Your task to perform on an android device: open app "Google Maps" Image 0: 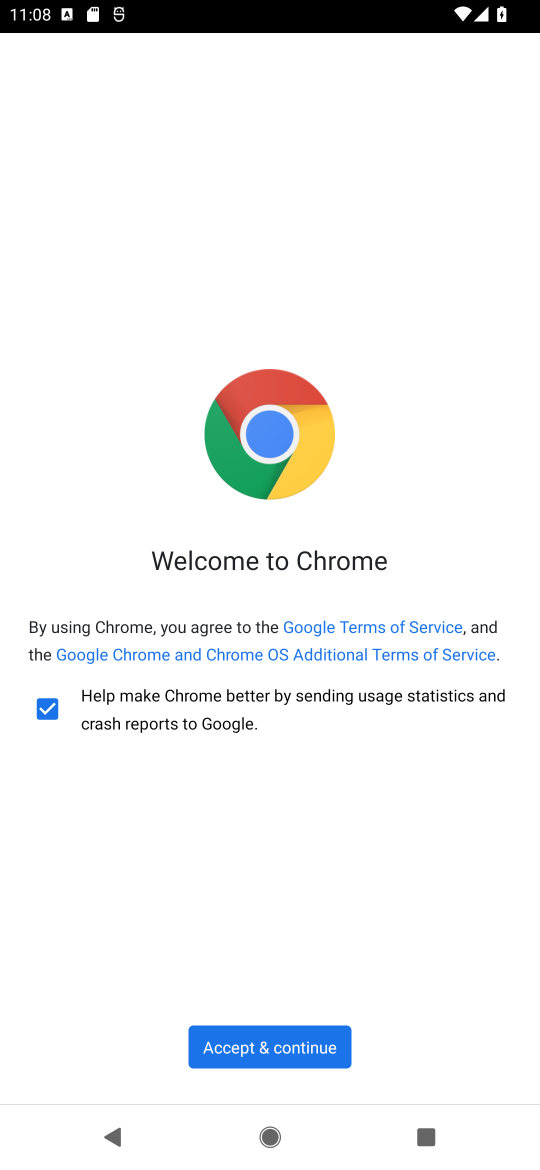
Step 0: press home button
Your task to perform on an android device: open app "Google Maps" Image 1: 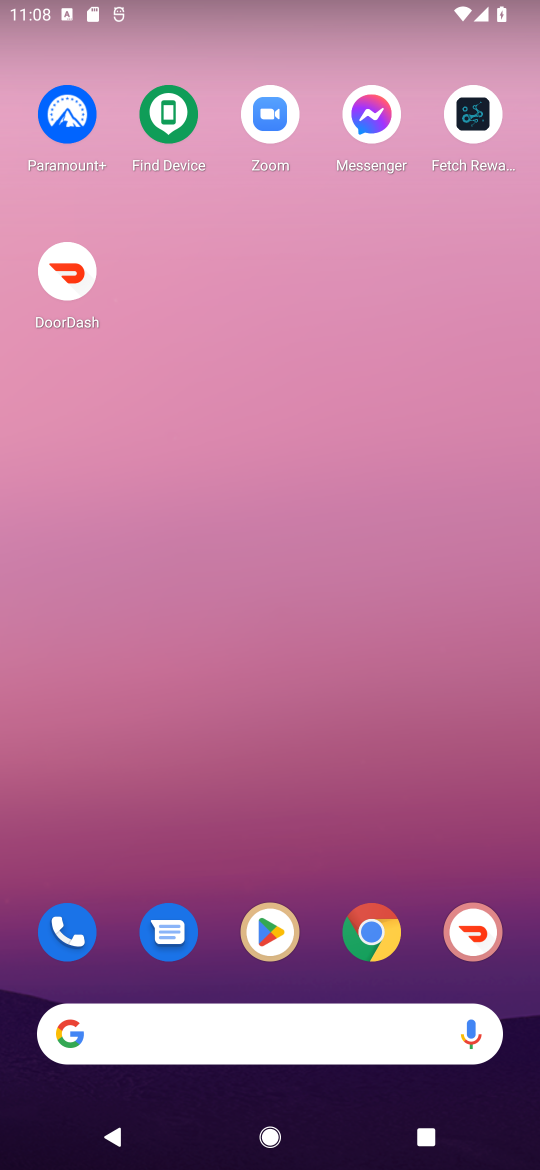
Step 1: click (274, 924)
Your task to perform on an android device: open app "Google Maps" Image 2: 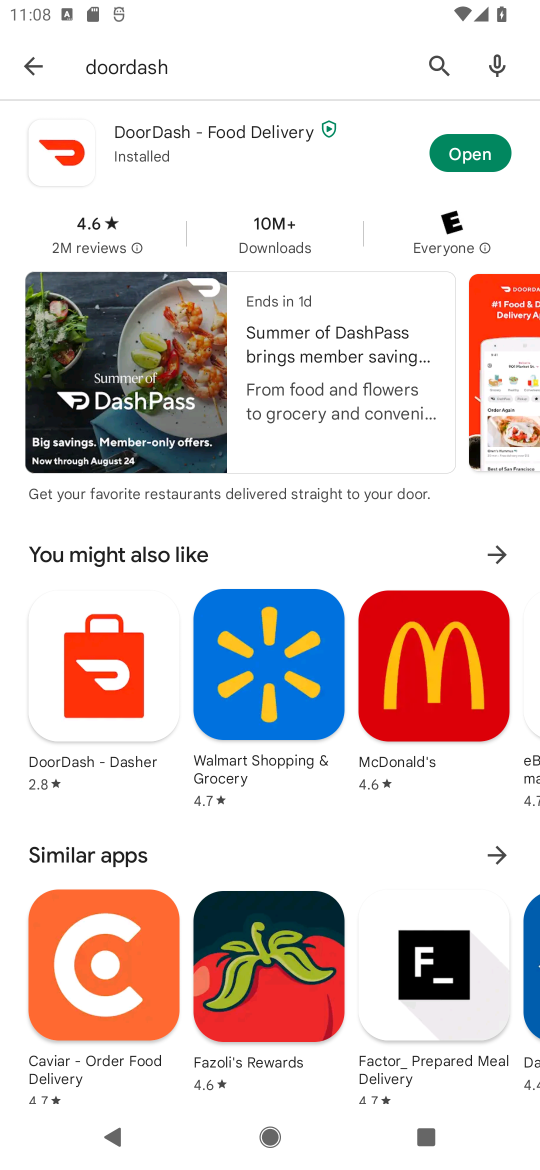
Step 2: click (436, 68)
Your task to perform on an android device: open app "Google Maps" Image 3: 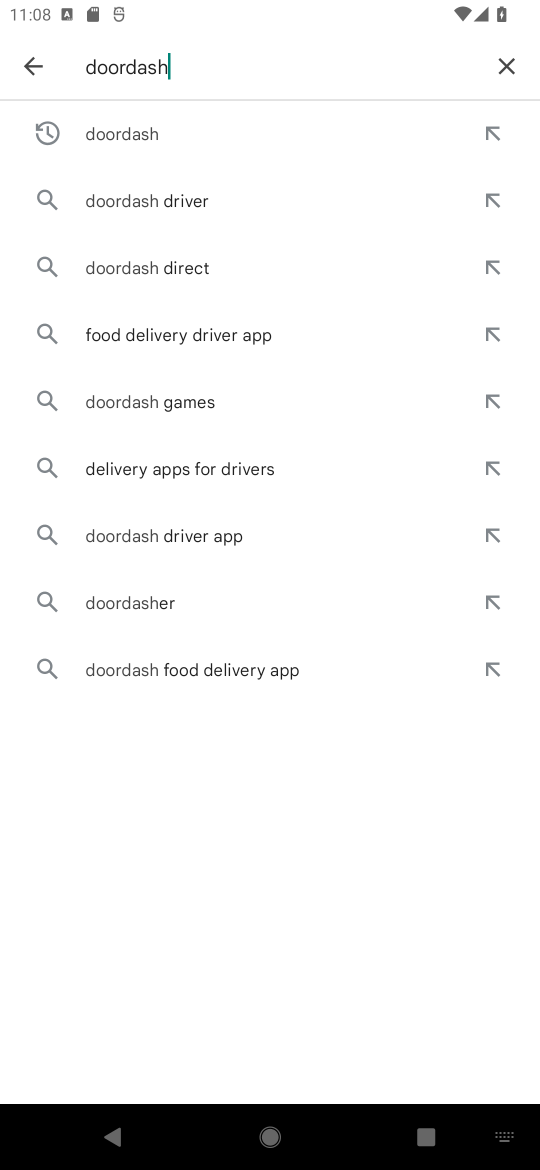
Step 3: click (502, 62)
Your task to perform on an android device: open app "Google Maps" Image 4: 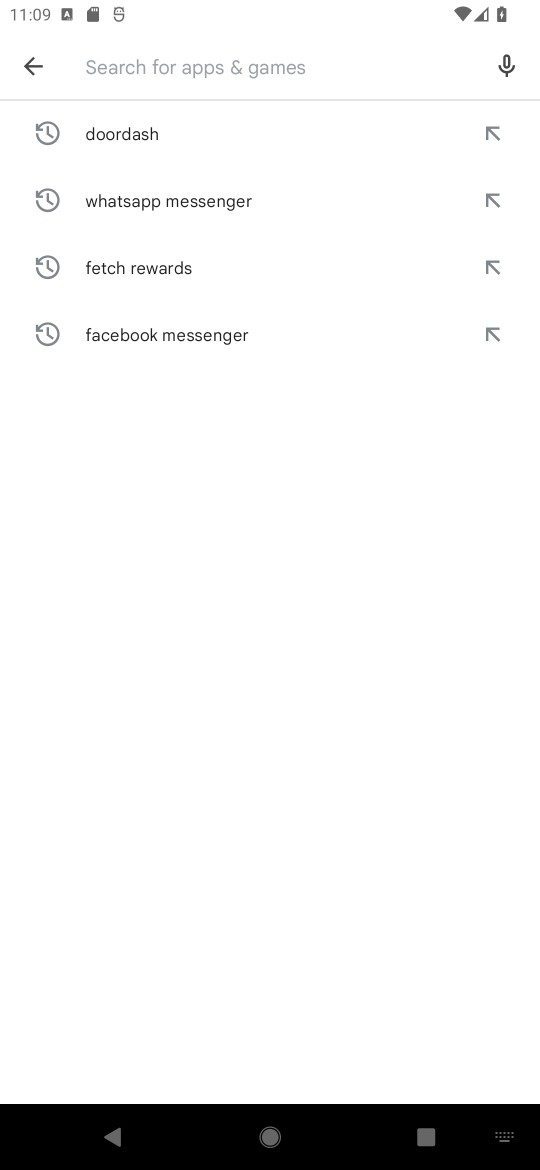
Step 4: click (138, 75)
Your task to perform on an android device: open app "Google Maps" Image 5: 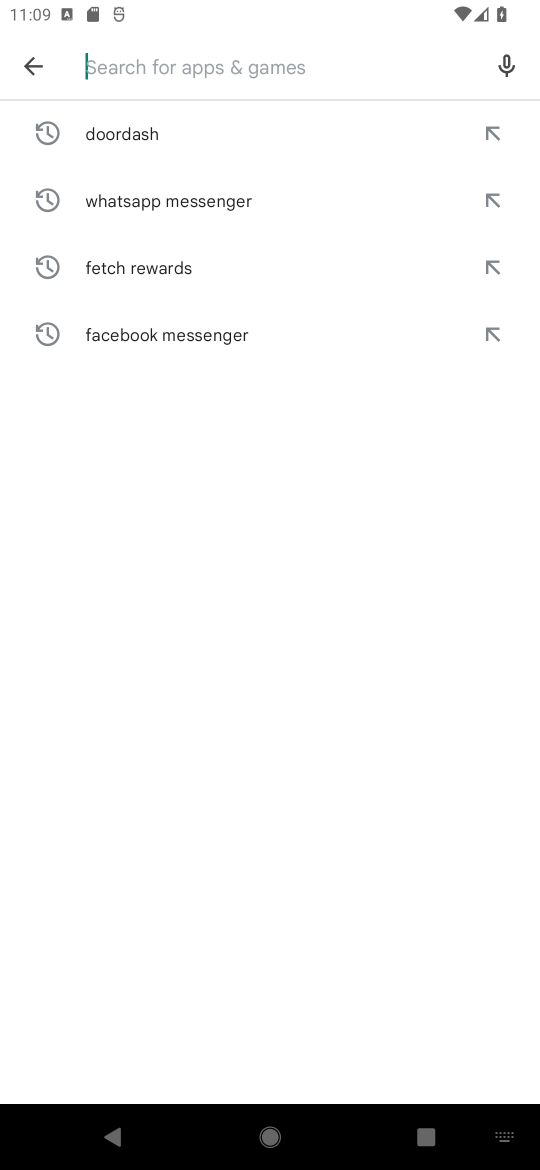
Step 5: type "Google Maps"
Your task to perform on an android device: open app "Google Maps" Image 6: 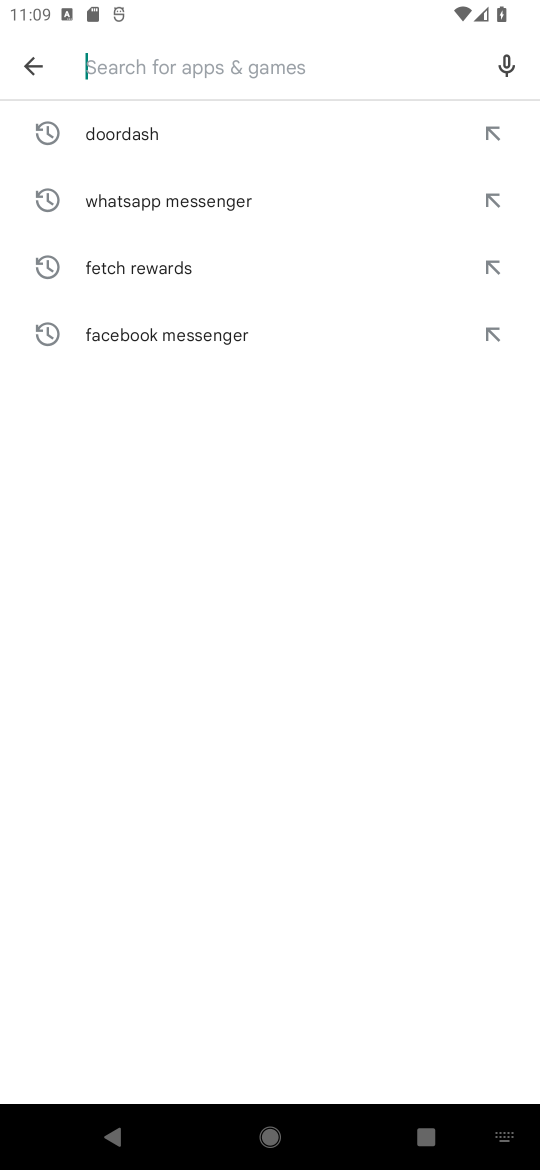
Step 6: click (229, 654)
Your task to perform on an android device: open app "Google Maps" Image 7: 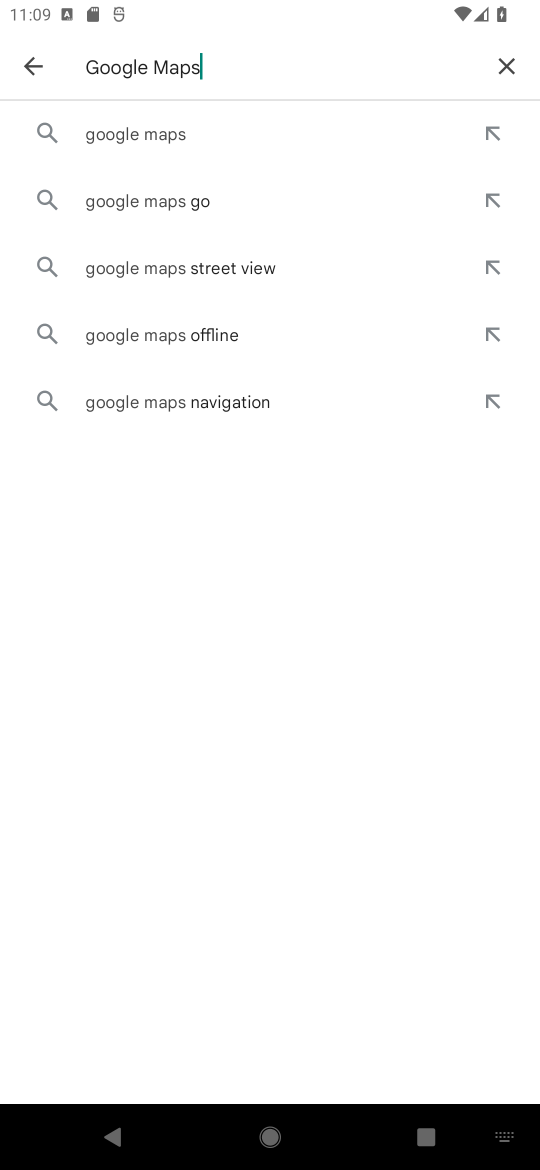
Step 7: click (129, 129)
Your task to perform on an android device: open app "Google Maps" Image 8: 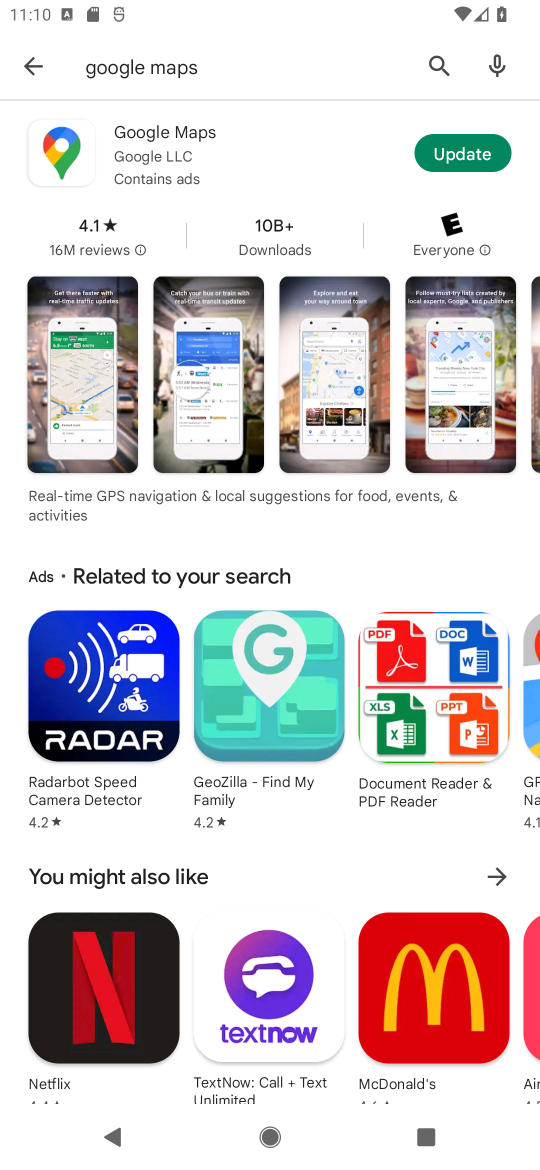
Step 8: click (158, 140)
Your task to perform on an android device: open app "Google Maps" Image 9: 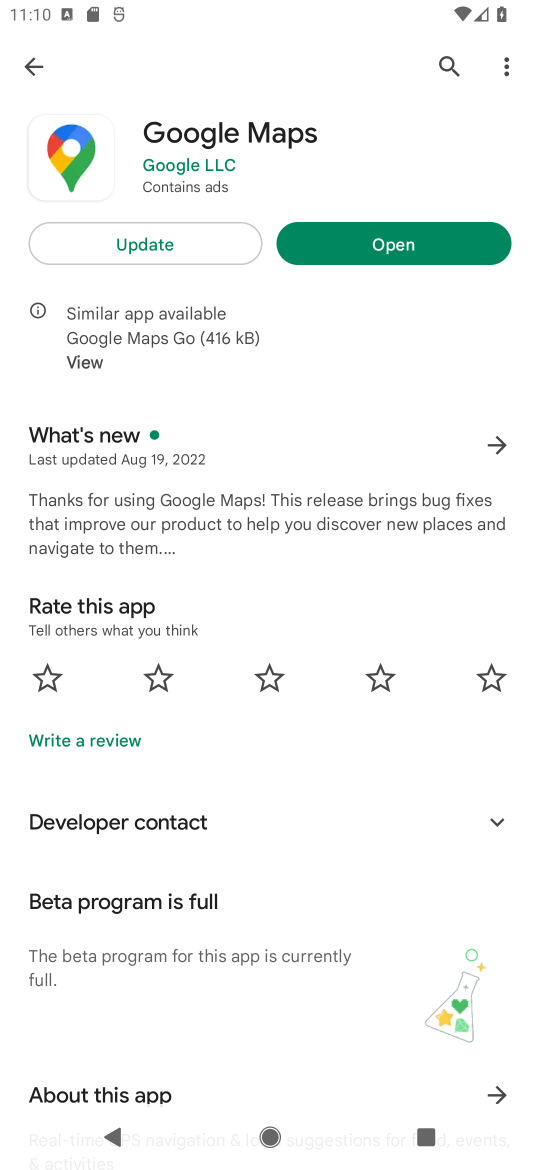
Step 9: click (425, 246)
Your task to perform on an android device: open app "Google Maps" Image 10: 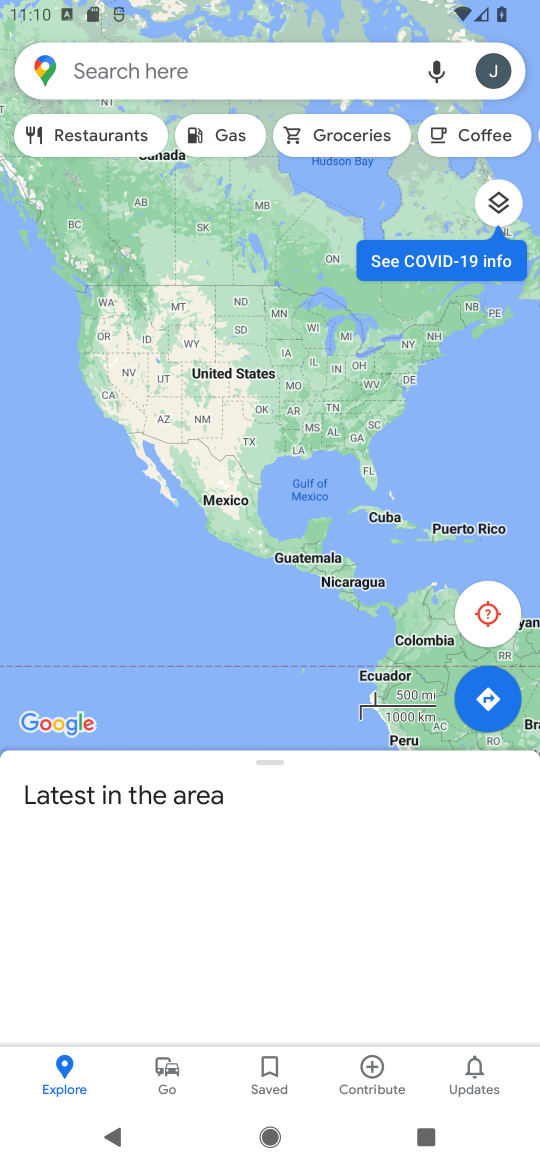
Step 10: task complete